Your task to perform on an android device: Add acer predator to the cart on ebay.com Image 0: 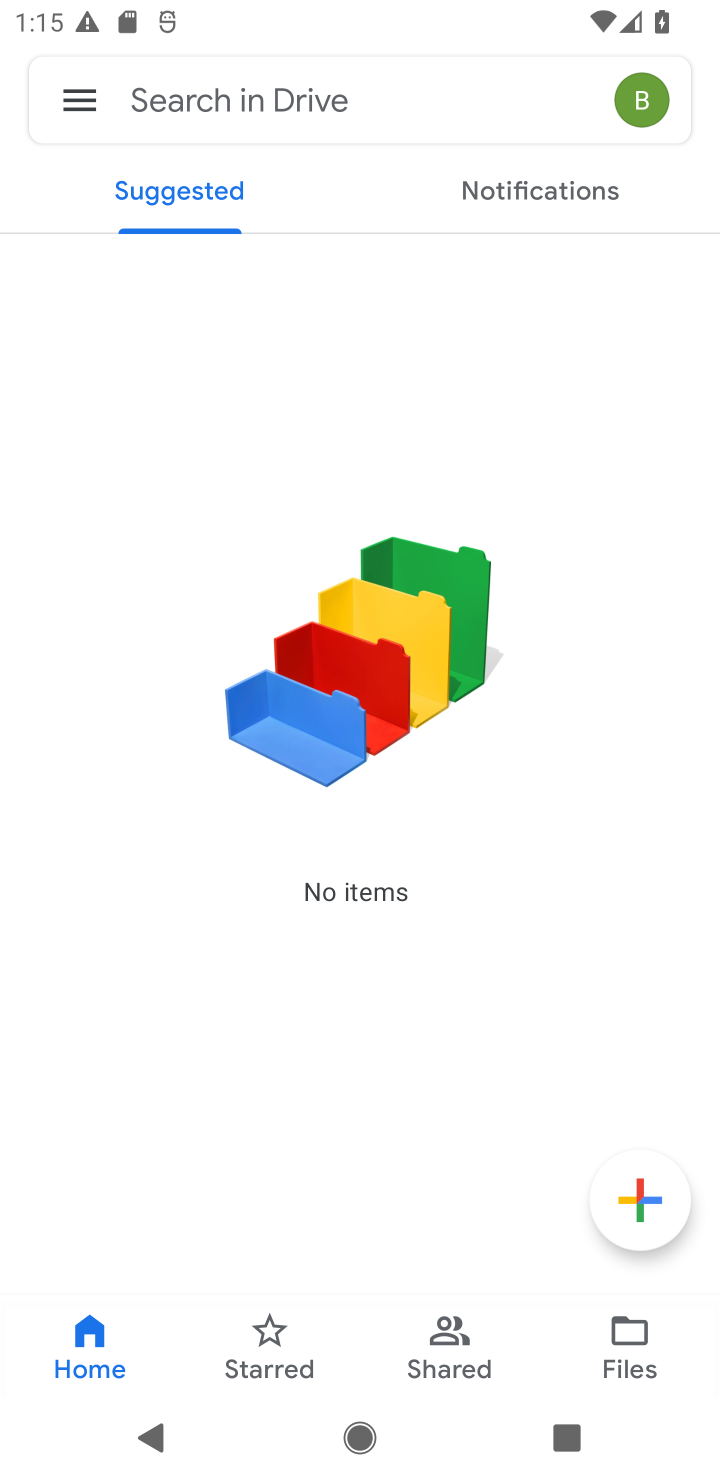
Step 0: press home button
Your task to perform on an android device: Add acer predator to the cart on ebay.com Image 1: 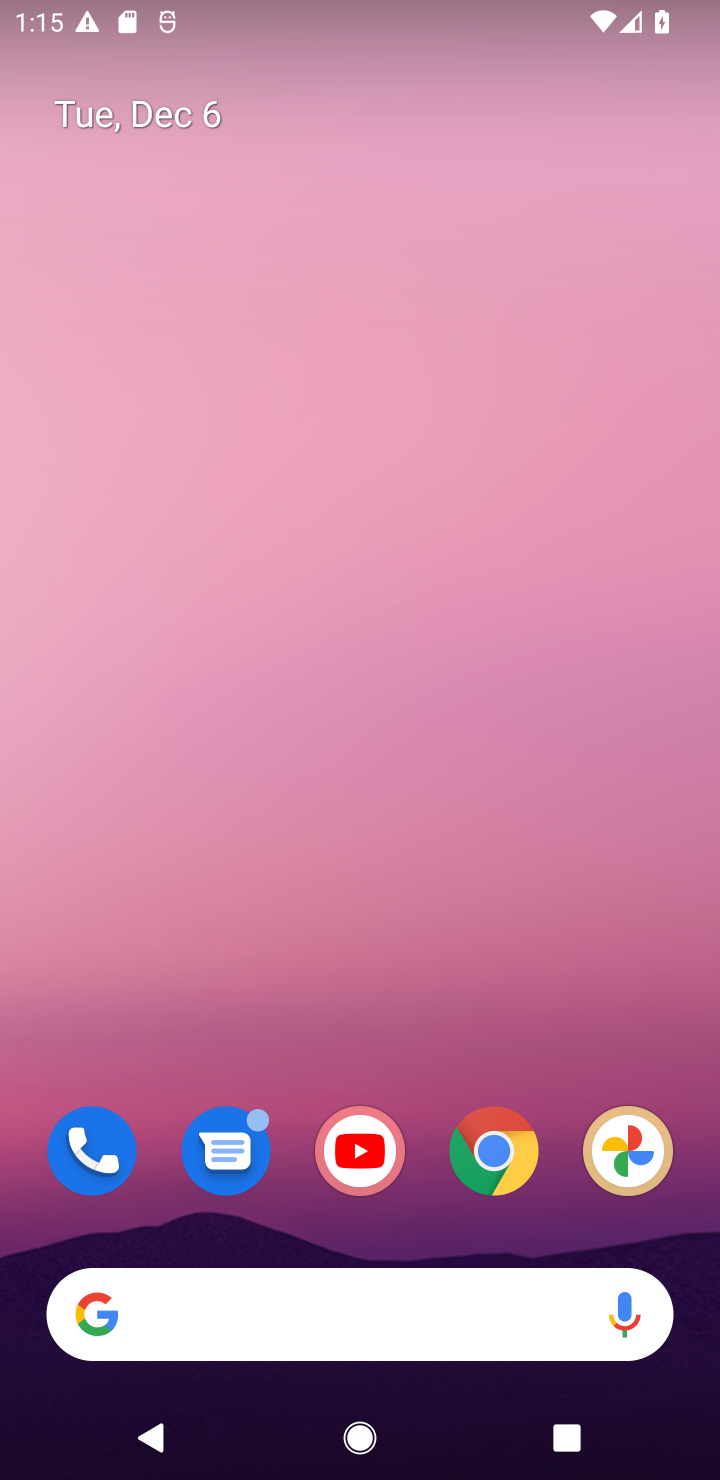
Step 1: click (498, 1160)
Your task to perform on an android device: Add acer predator to the cart on ebay.com Image 2: 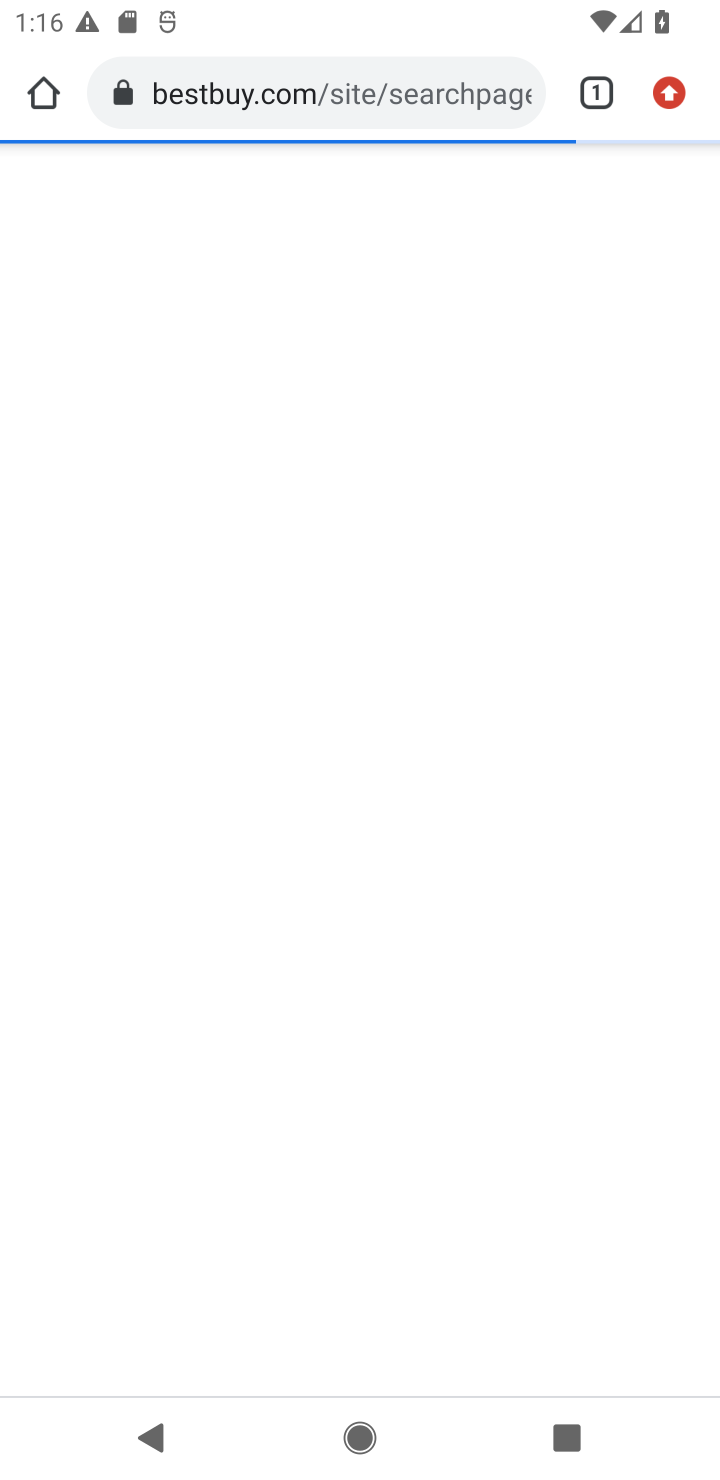
Step 2: click (255, 100)
Your task to perform on an android device: Add acer predator to the cart on ebay.com Image 3: 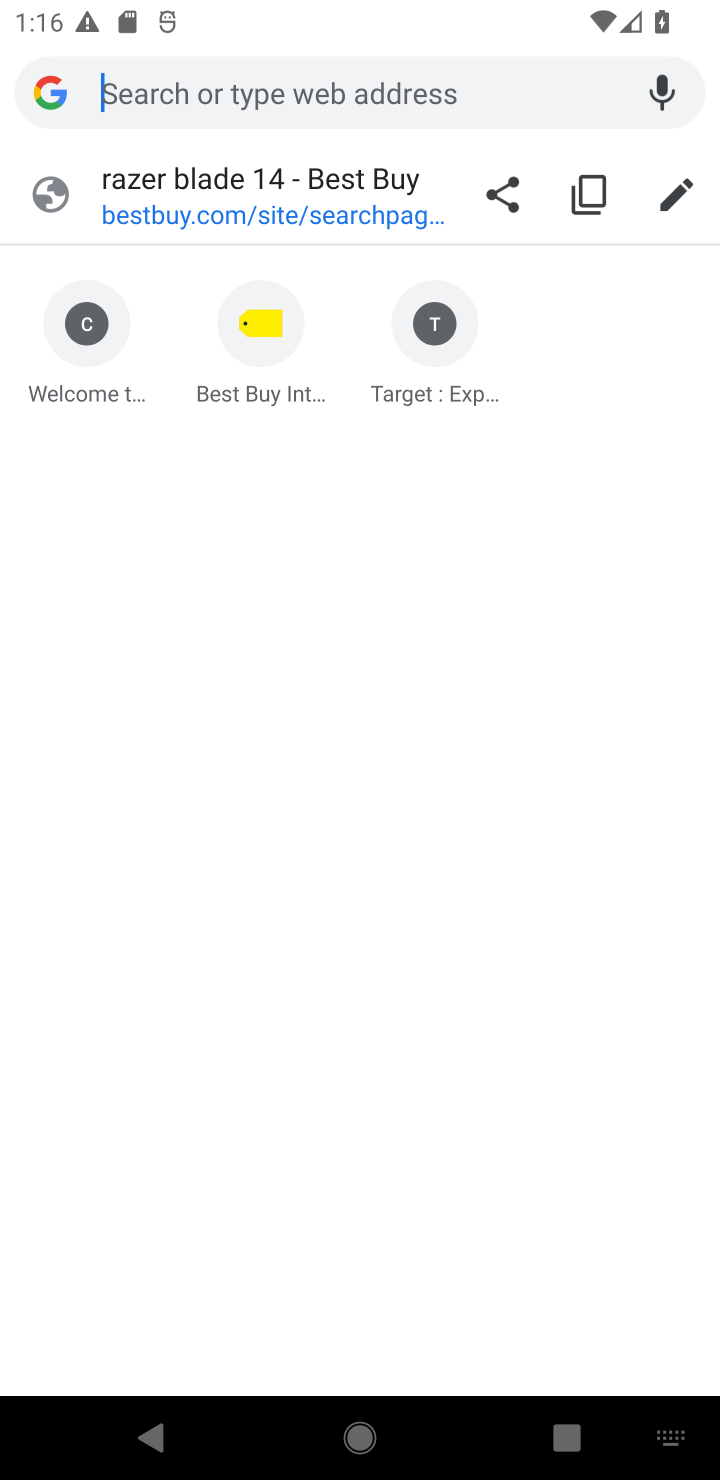
Step 3: type "ebay.com"
Your task to perform on an android device: Add acer predator to the cart on ebay.com Image 4: 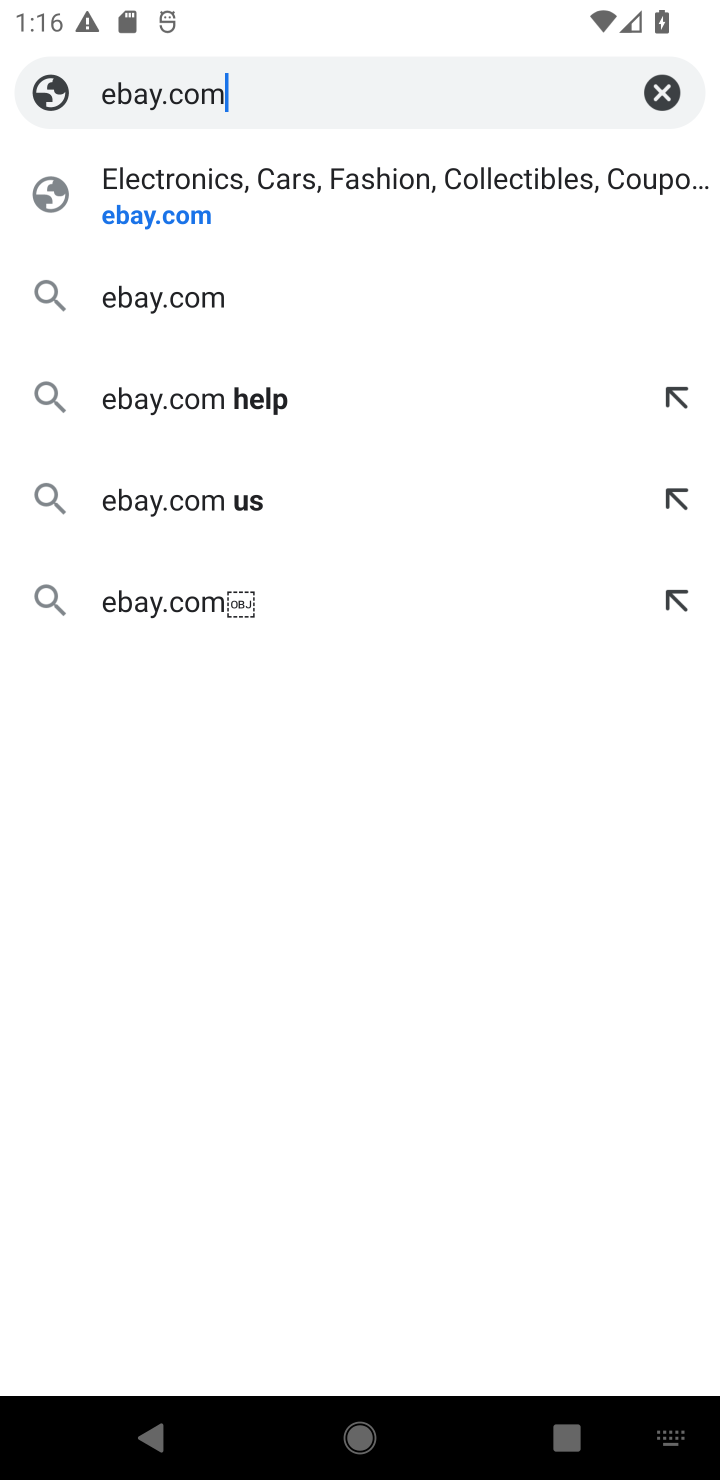
Step 4: click (146, 225)
Your task to perform on an android device: Add acer predator to the cart on ebay.com Image 5: 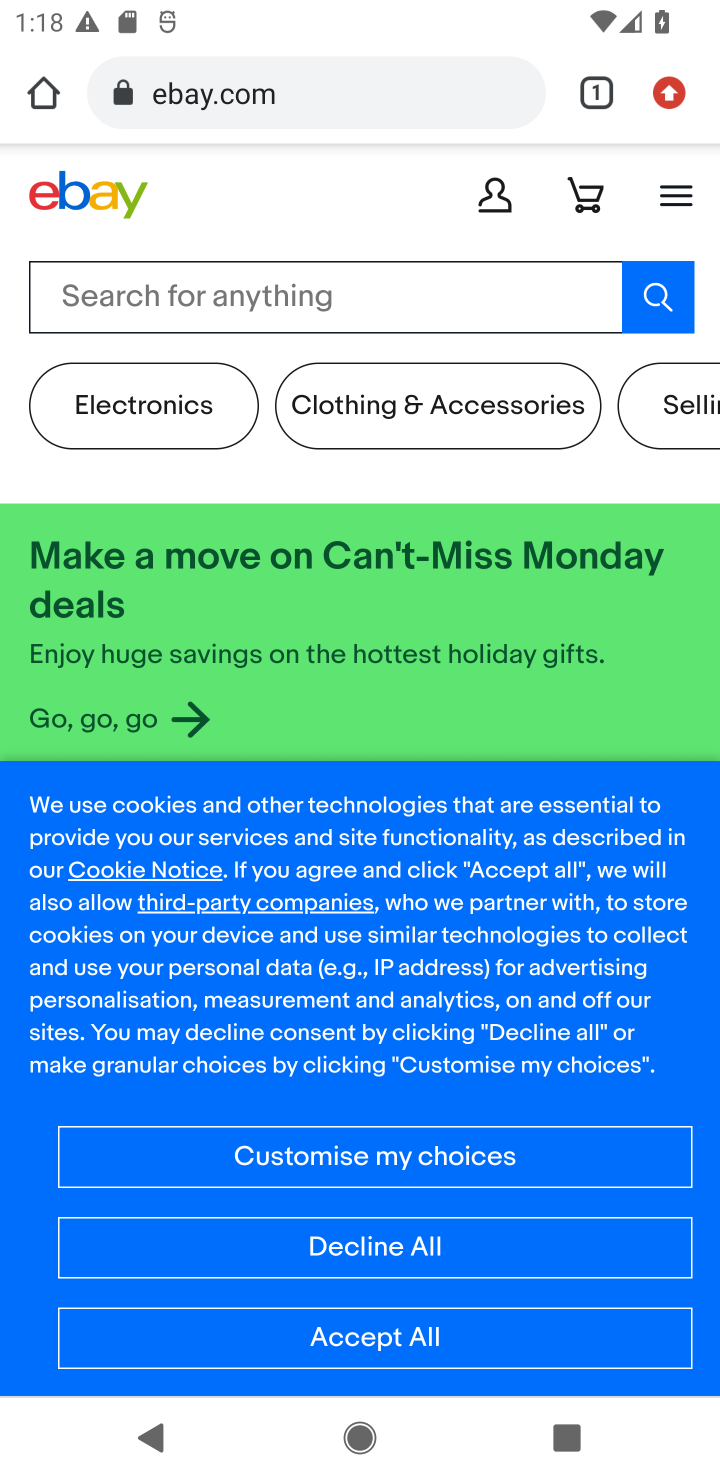
Step 5: click (196, 305)
Your task to perform on an android device: Add acer predator to the cart on ebay.com Image 6: 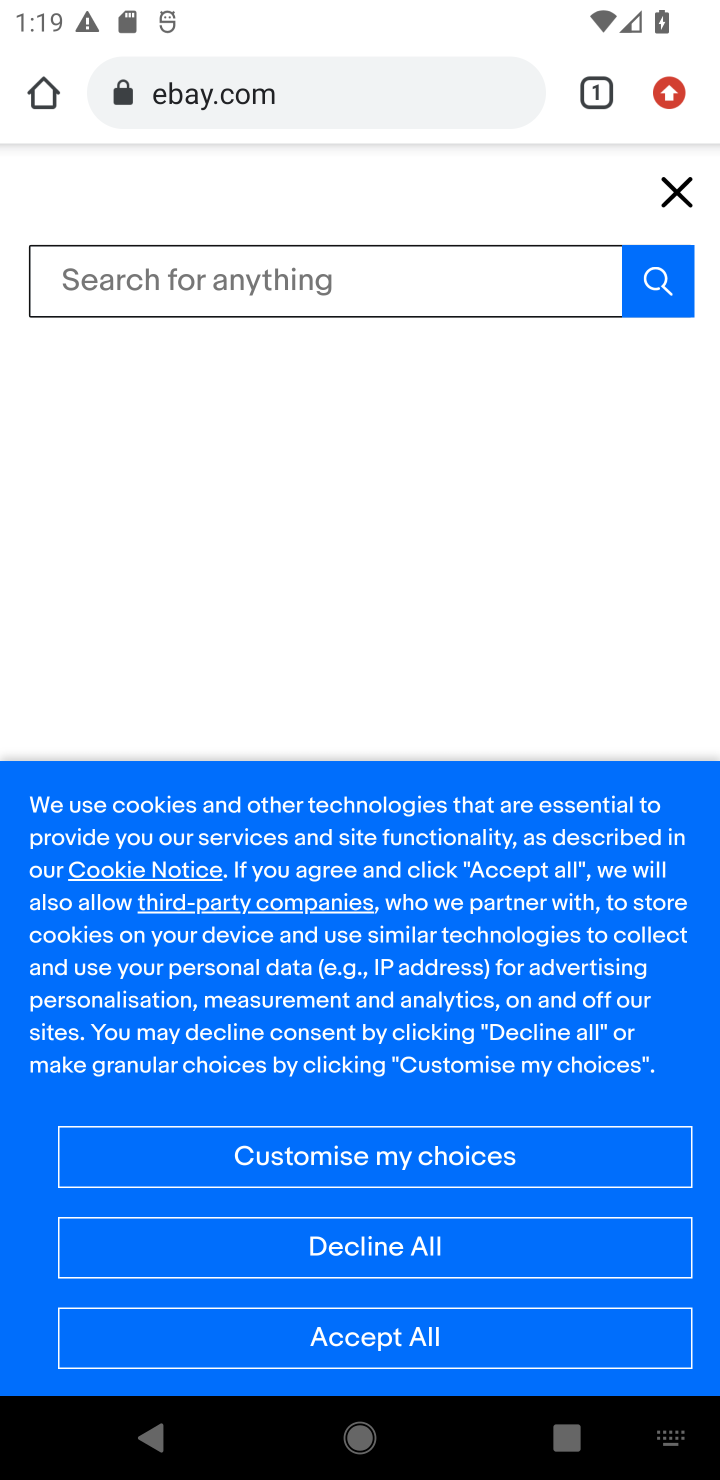
Step 6: type " acer predator"
Your task to perform on an android device: Add acer predator to the cart on ebay.com Image 7: 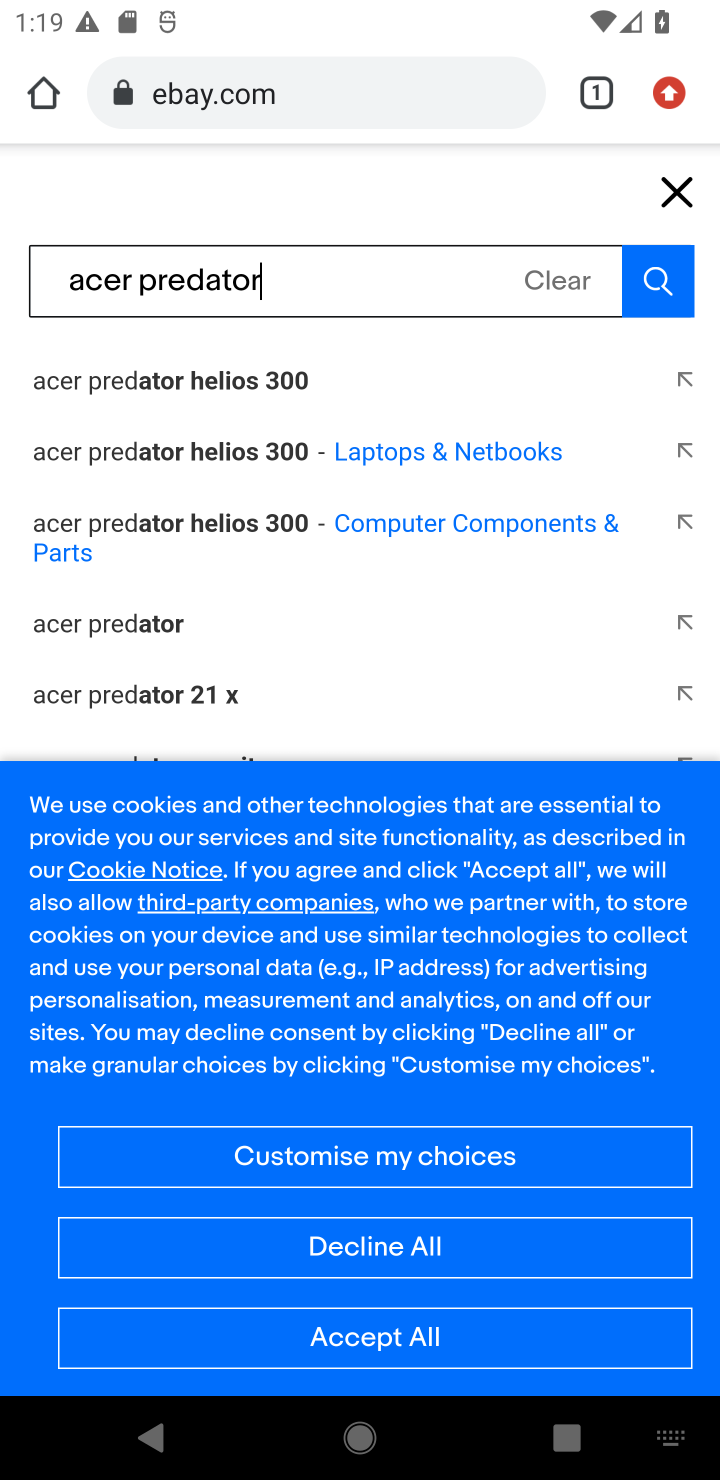
Step 7: click (657, 292)
Your task to perform on an android device: Add acer predator to the cart on ebay.com Image 8: 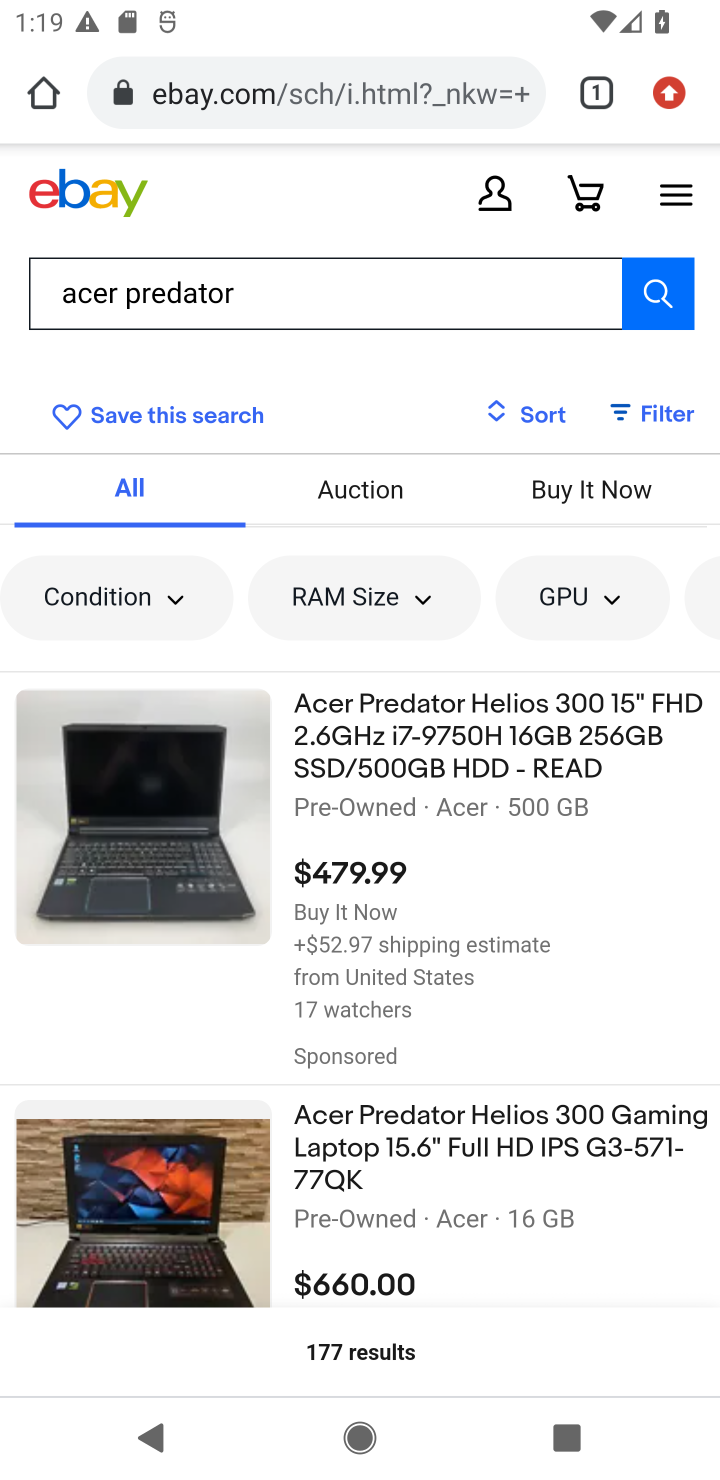
Step 8: click (404, 772)
Your task to perform on an android device: Add acer predator to the cart on ebay.com Image 9: 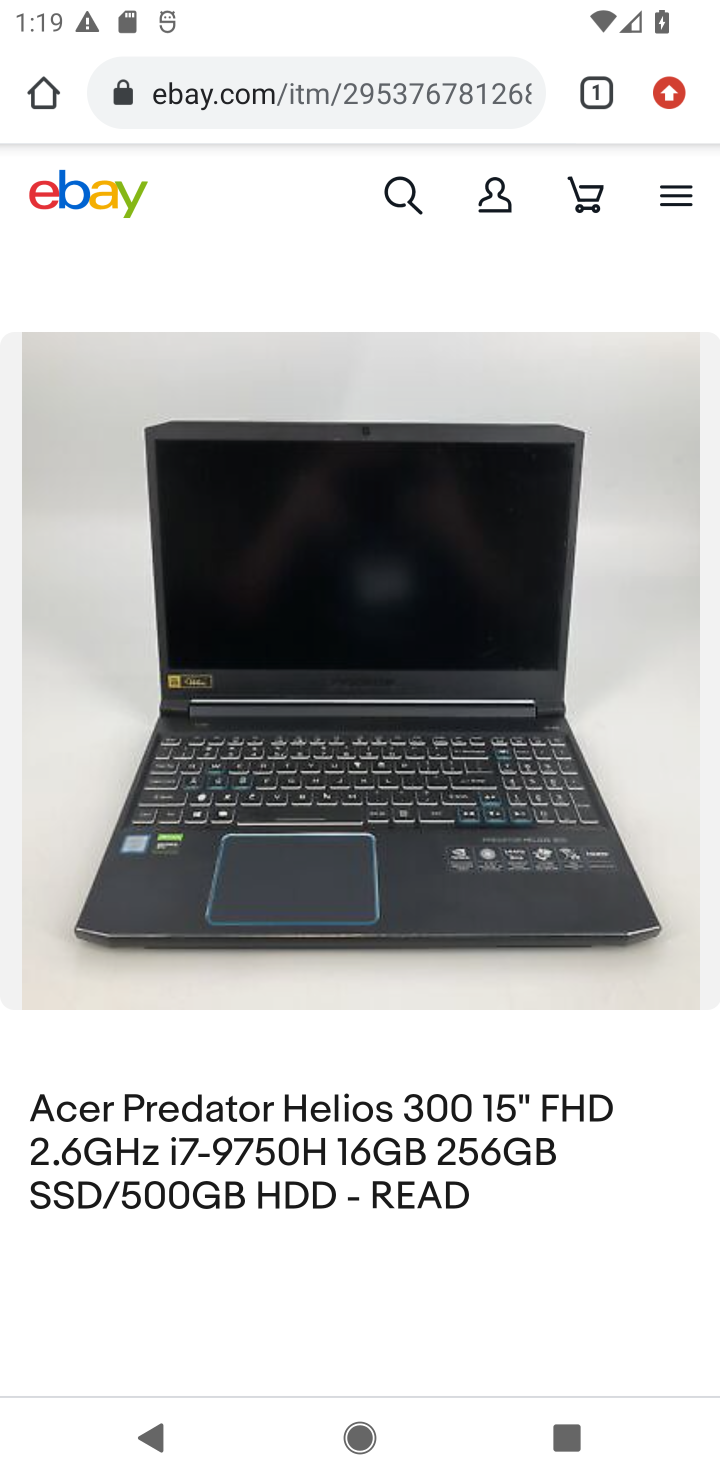
Step 9: drag from (378, 1155) to (407, 328)
Your task to perform on an android device: Add acer predator to the cart on ebay.com Image 10: 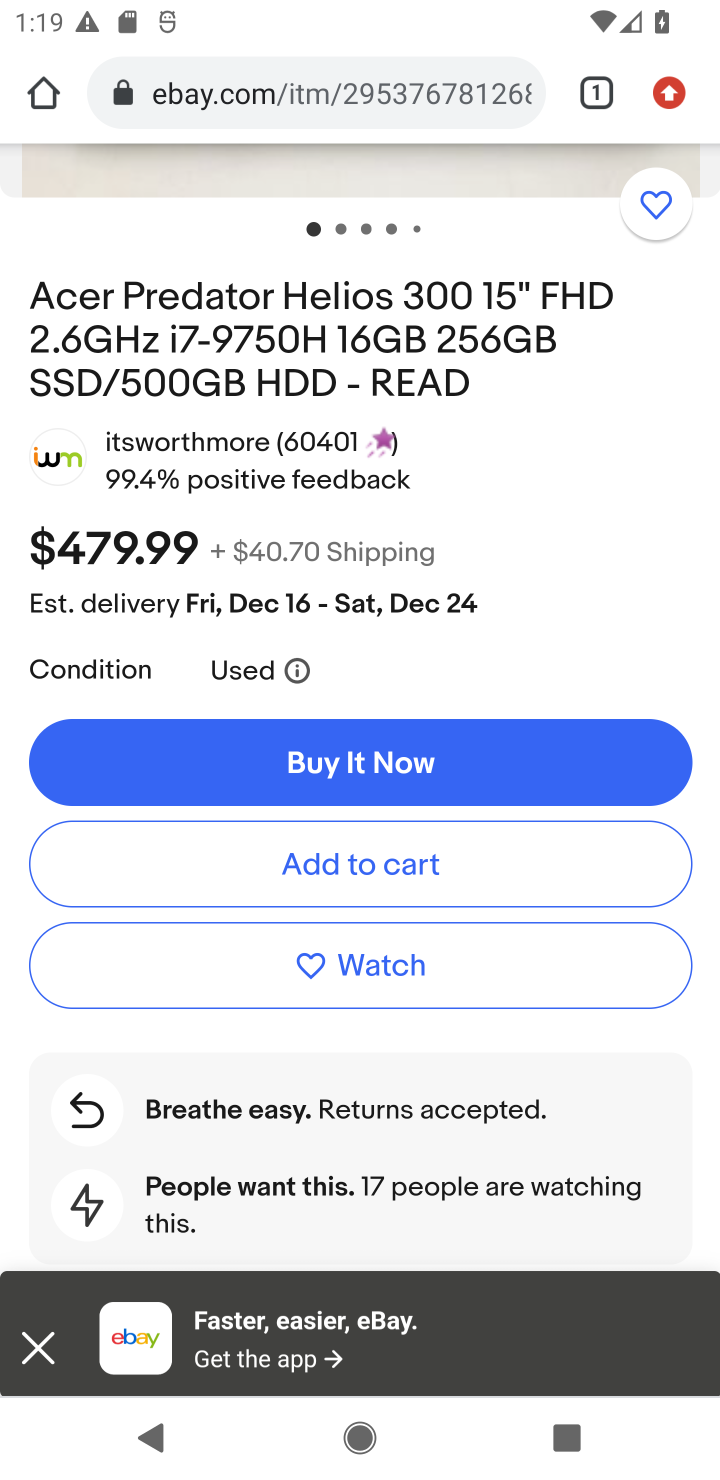
Step 10: click (320, 874)
Your task to perform on an android device: Add acer predator to the cart on ebay.com Image 11: 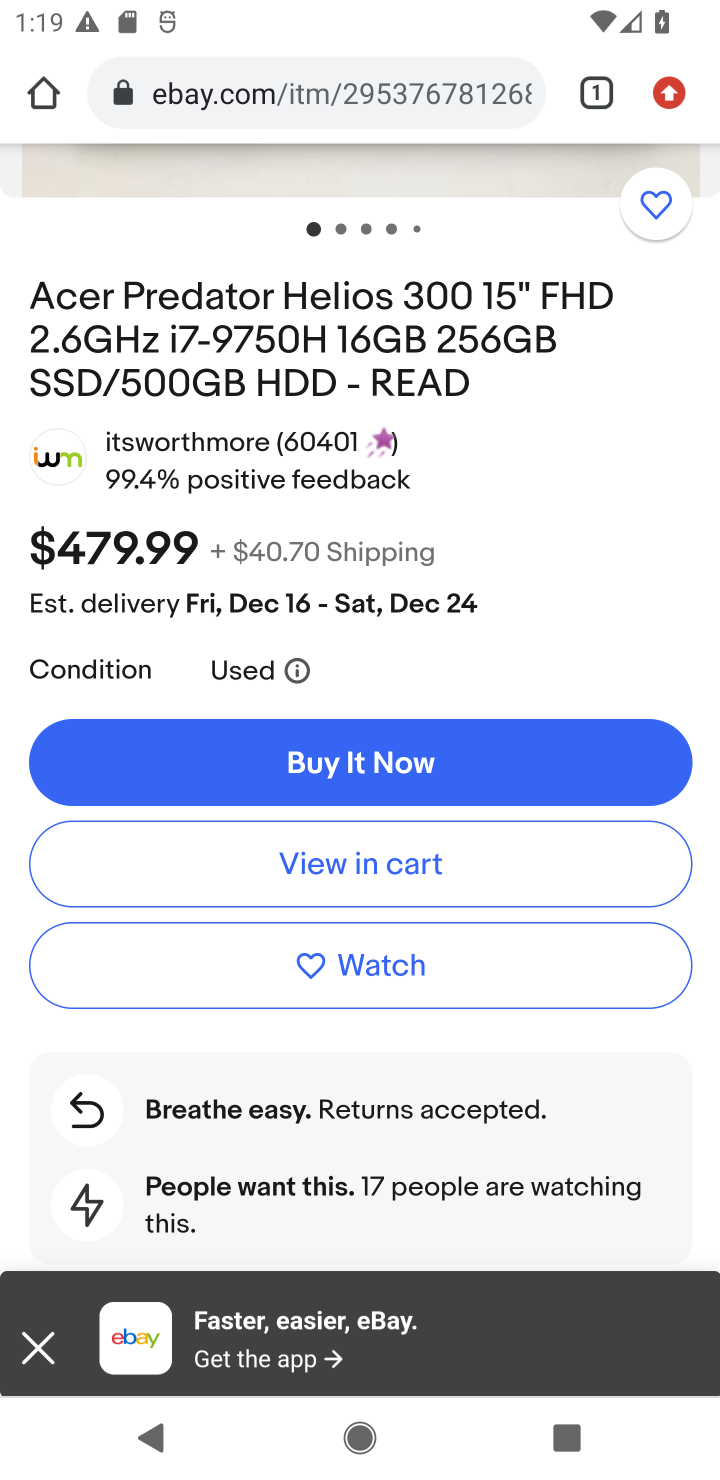
Step 11: task complete